Your task to perform on an android device: all mails in gmail Image 0: 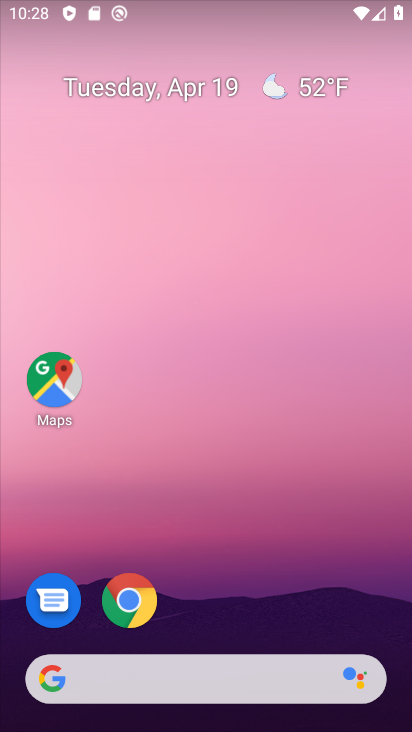
Step 0: drag from (203, 640) to (172, 50)
Your task to perform on an android device: all mails in gmail Image 1: 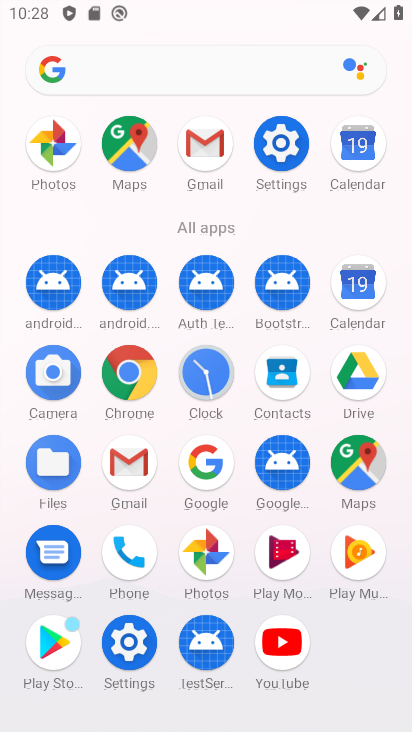
Step 1: click (127, 468)
Your task to perform on an android device: all mails in gmail Image 2: 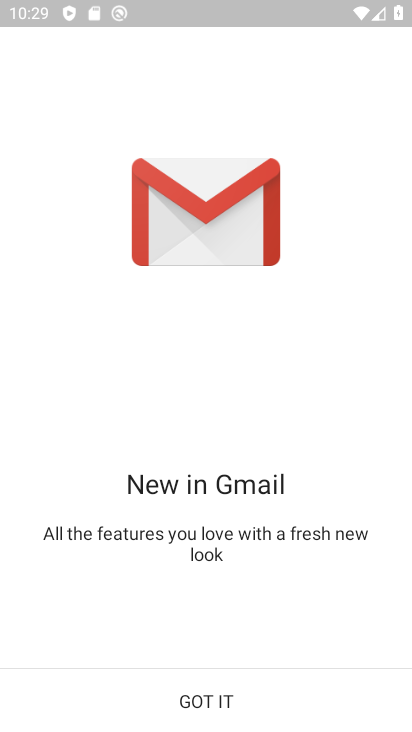
Step 2: click (192, 690)
Your task to perform on an android device: all mails in gmail Image 3: 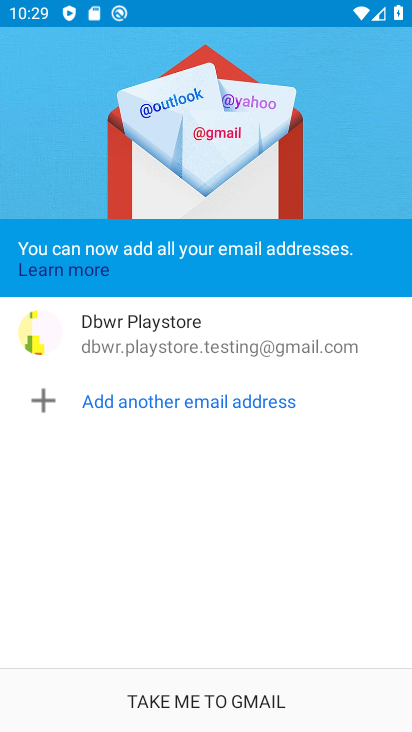
Step 3: click (183, 703)
Your task to perform on an android device: all mails in gmail Image 4: 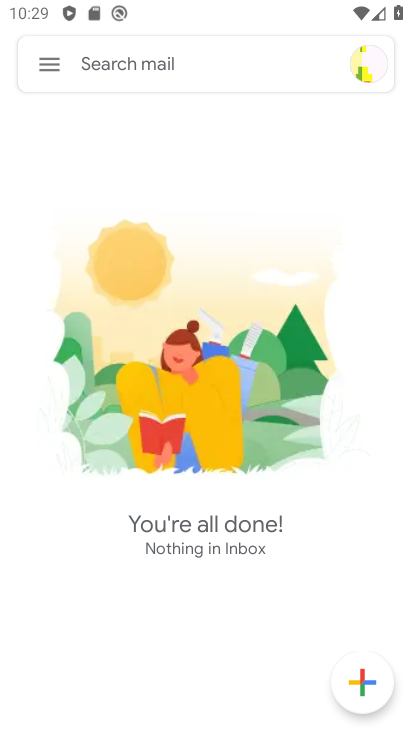
Step 4: click (52, 63)
Your task to perform on an android device: all mails in gmail Image 5: 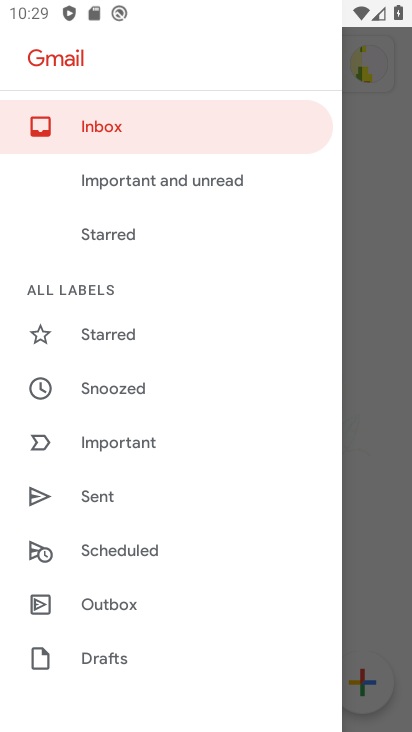
Step 5: drag from (125, 460) to (114, 235)
Your task to perform on an android device: all mails in gmail Image 6: 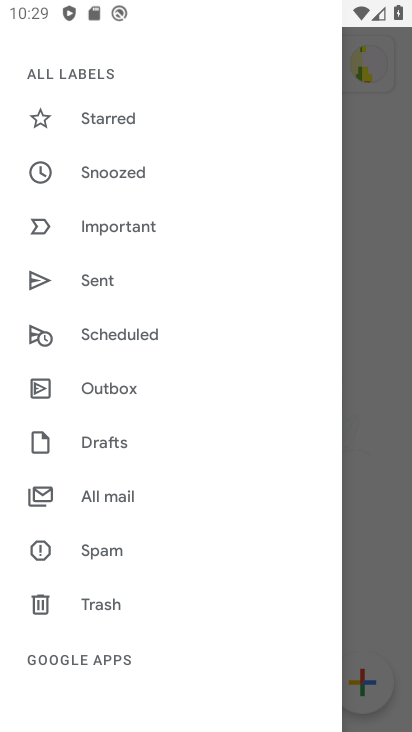
Step 6: click (116, 498)
Your task to perform on an android device: all mails in gmail Image 7: 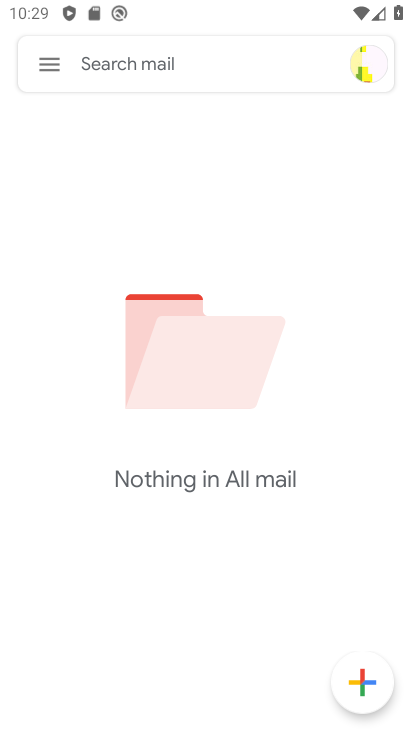
Step 7: task complete